Your task to perform on an android device: set the stopwatch Image 0: 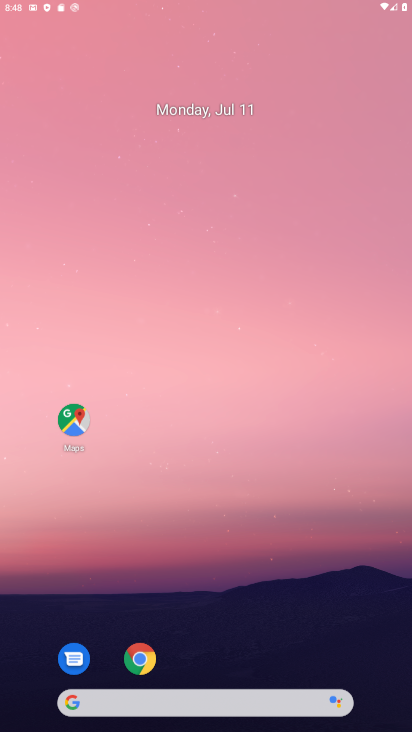
Step 0: click (137, 193)
Your task to perform on an android device: set the stopwatch Image 1: 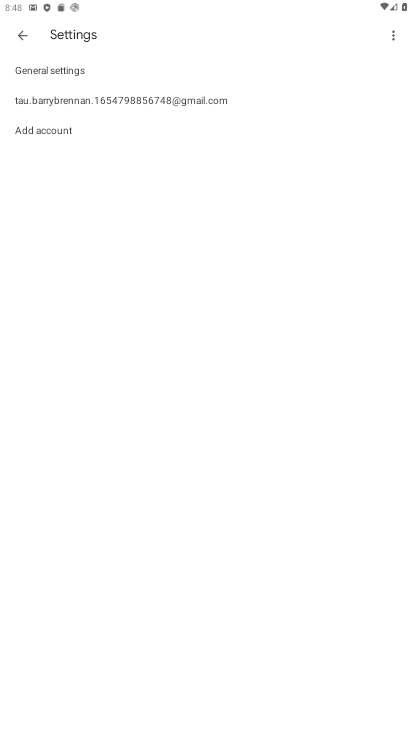
Step 1: click (14, 35)
Your task to perform on an android device: set the stopwatch Image 2: 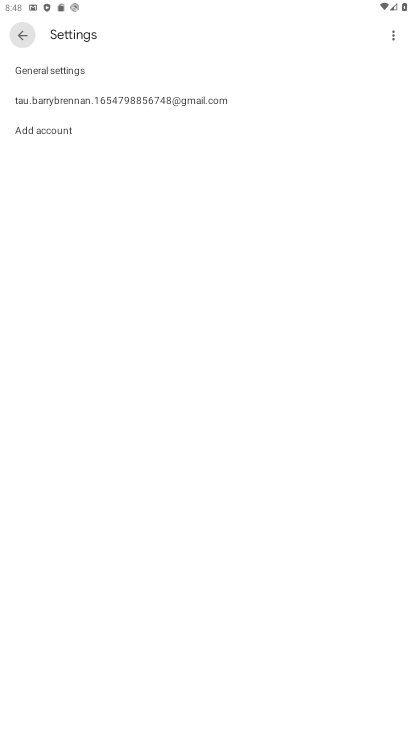
Step 2: click (34, 23)
Your task to perform on an android device: set the stopwatch Image 3: 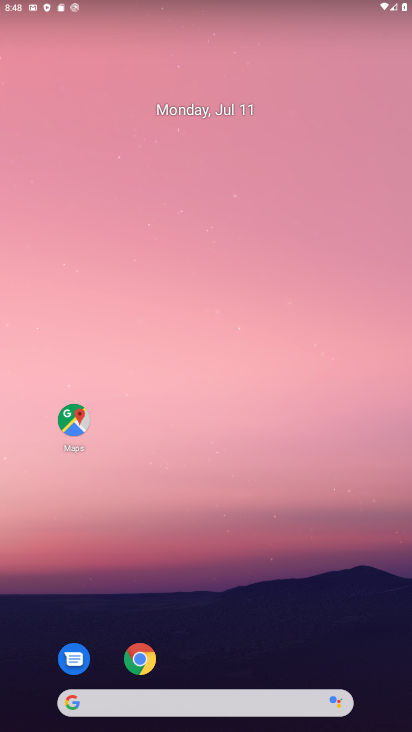
Step 3: drag from (238, 589) to (160, 37)
Your task to perform on an android device: set the stopwatch Image 4: 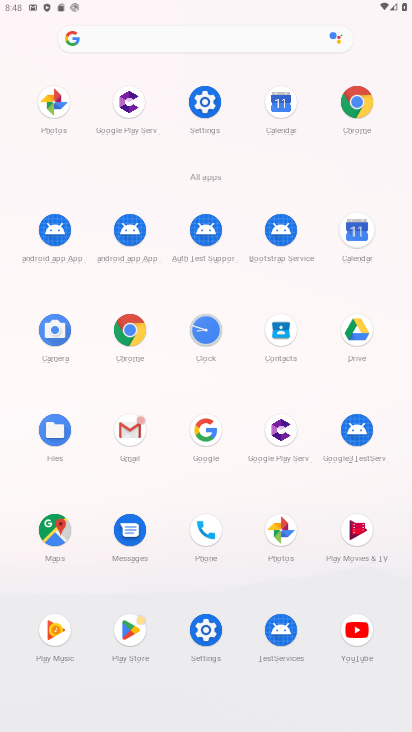
Step 4: click (197, 330)
Your task to perform on an android device: set the stopwatch Image 5: 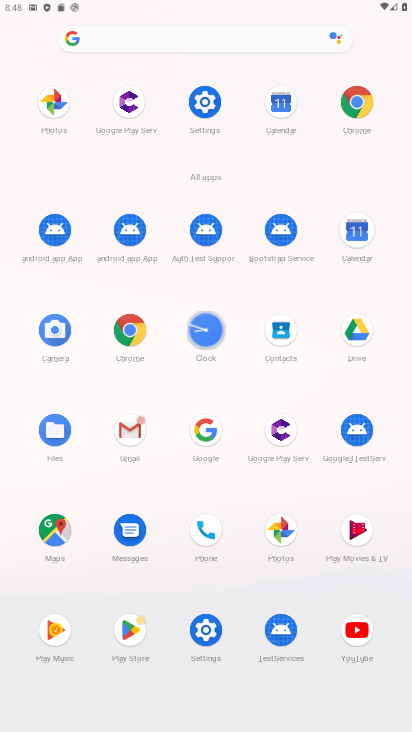
Step 5: click (202, 330)
Your task to perform on an android device: set the stopwatch Image 6: 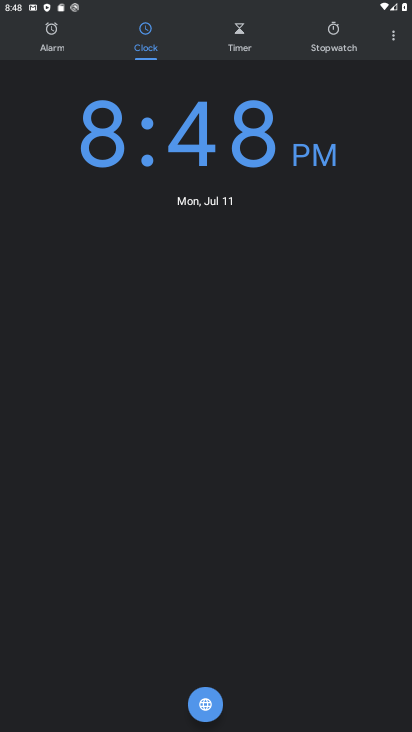
Step 6: click (205, 332)
Your task to perform on an android device: set the stopwatch Image 7: 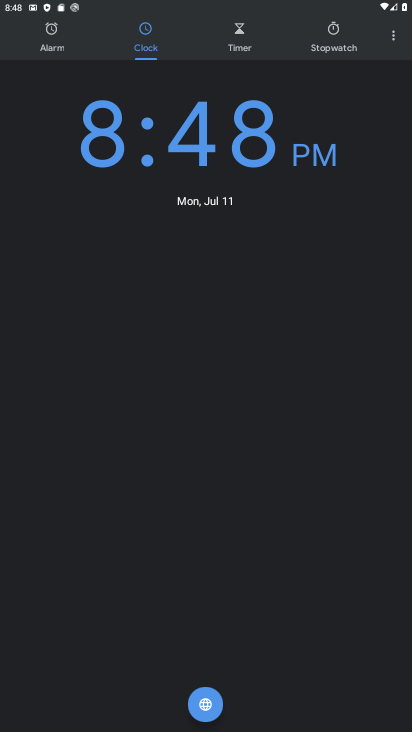
Step 7: click (329, 39)
Your task to perform on an android device: set the stopwatch Image 8: 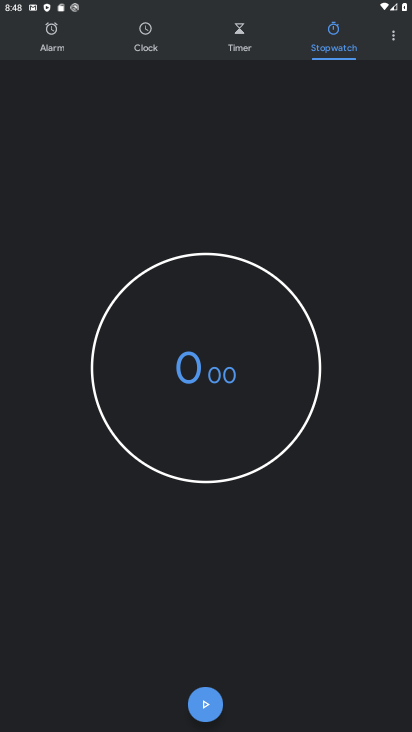
Step 8: click (209, 693)
Your task to perform on an android device: set the stopwatch Image 9: 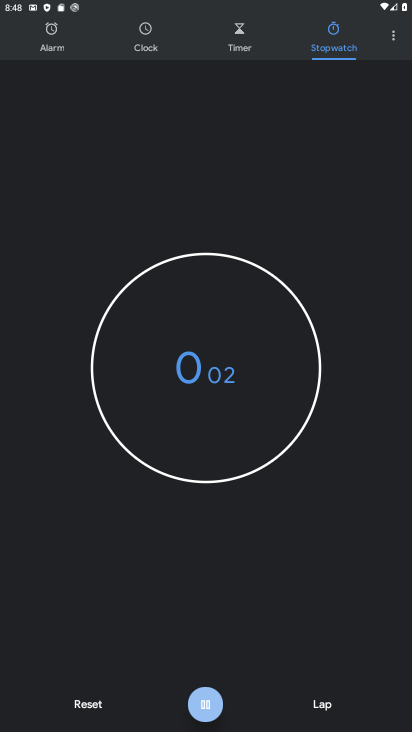
Step 9: click (206, 695)
Your task to perform on an android device: set the stopwatch Image 10: 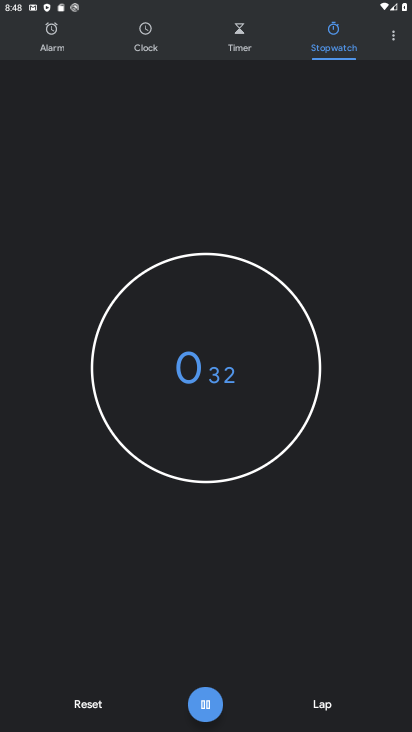
Step 10: click (204, 693)
Your task to perform on an android device: set the stopwatch Image 11: 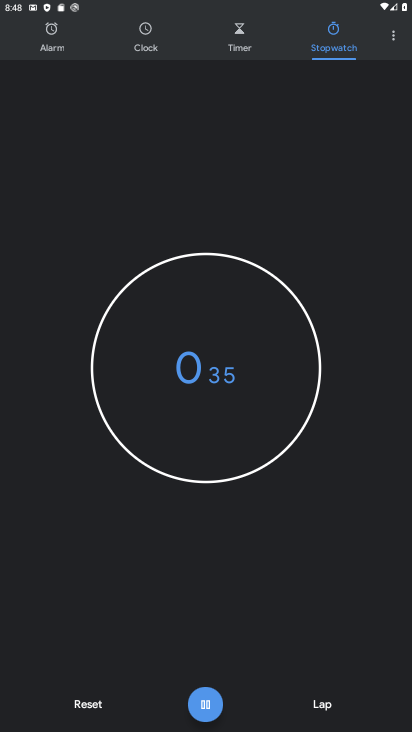
Step 11: click (204, 693)
Your task to perform on an android device: set the stopwatch Image 12: 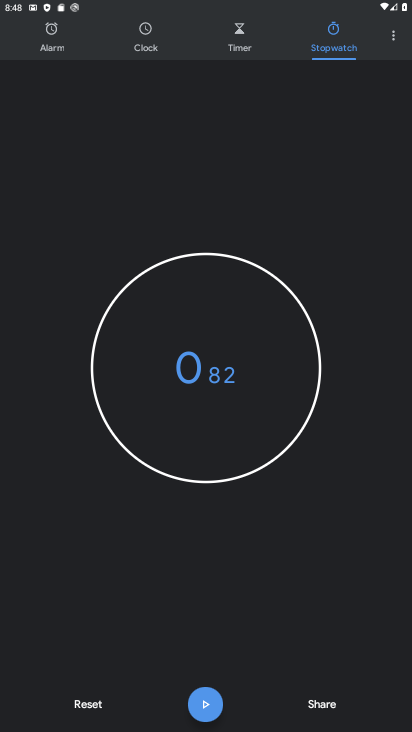
Step 12: click (206, 704)
Your task to perform on an android device: set the stopwatch Image 13: 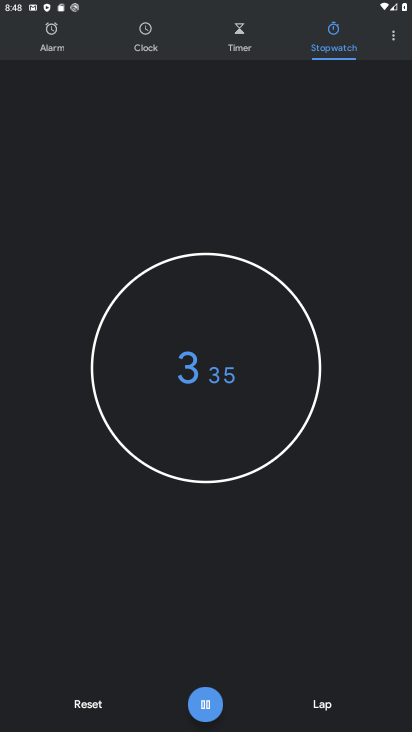
Step 13: click (200, 690)
Your task to perform on an android device: set the stopwatch Image 14: 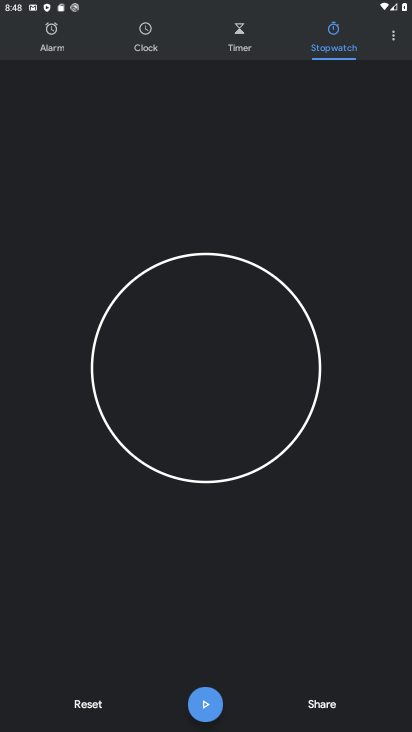
Step 14: task complete